Your task to perform on an android device: What's the weather? Image 0: 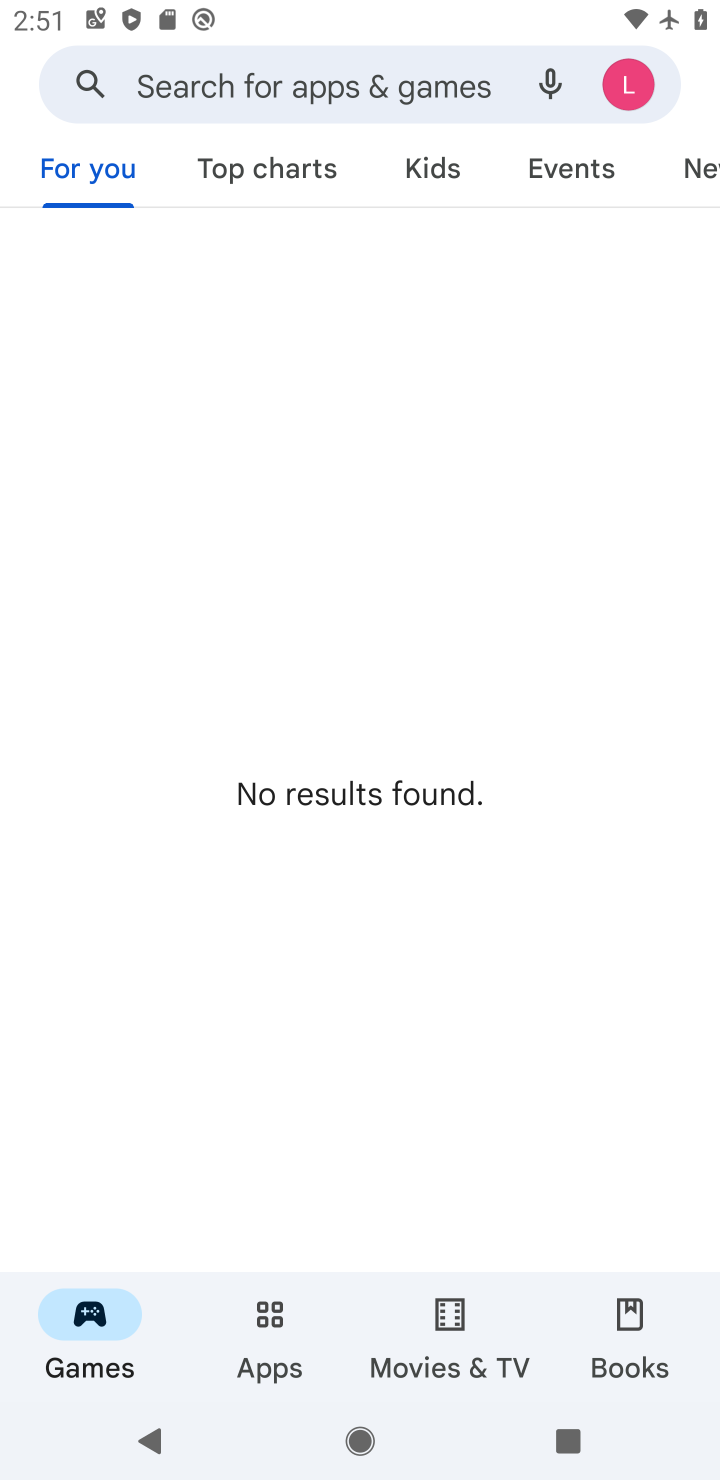
Step 0: press home button
Your task to perform on an android device: What's the weather? Image 1: 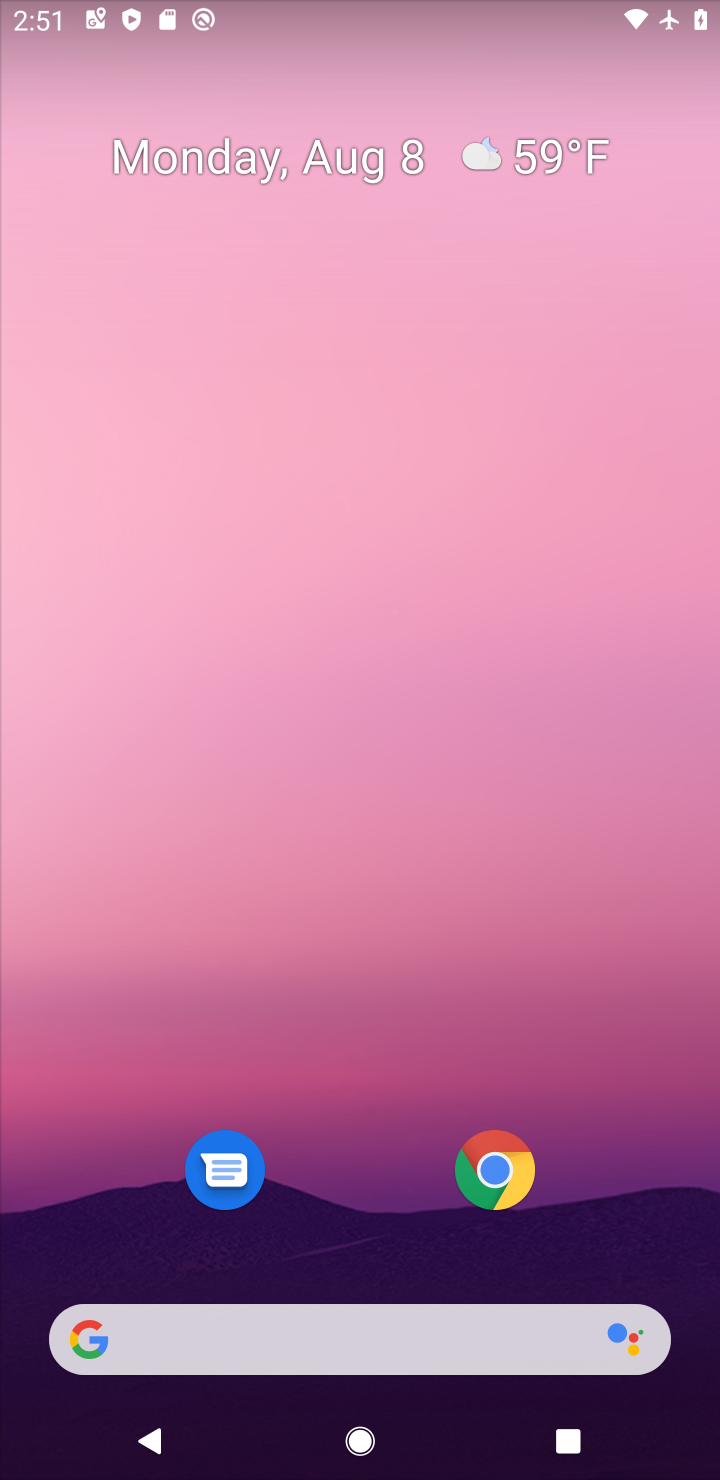
Step 1: drag from (385, 825) to (385, 510)
Your task to perform on an android device: What's the weather? Image 2: 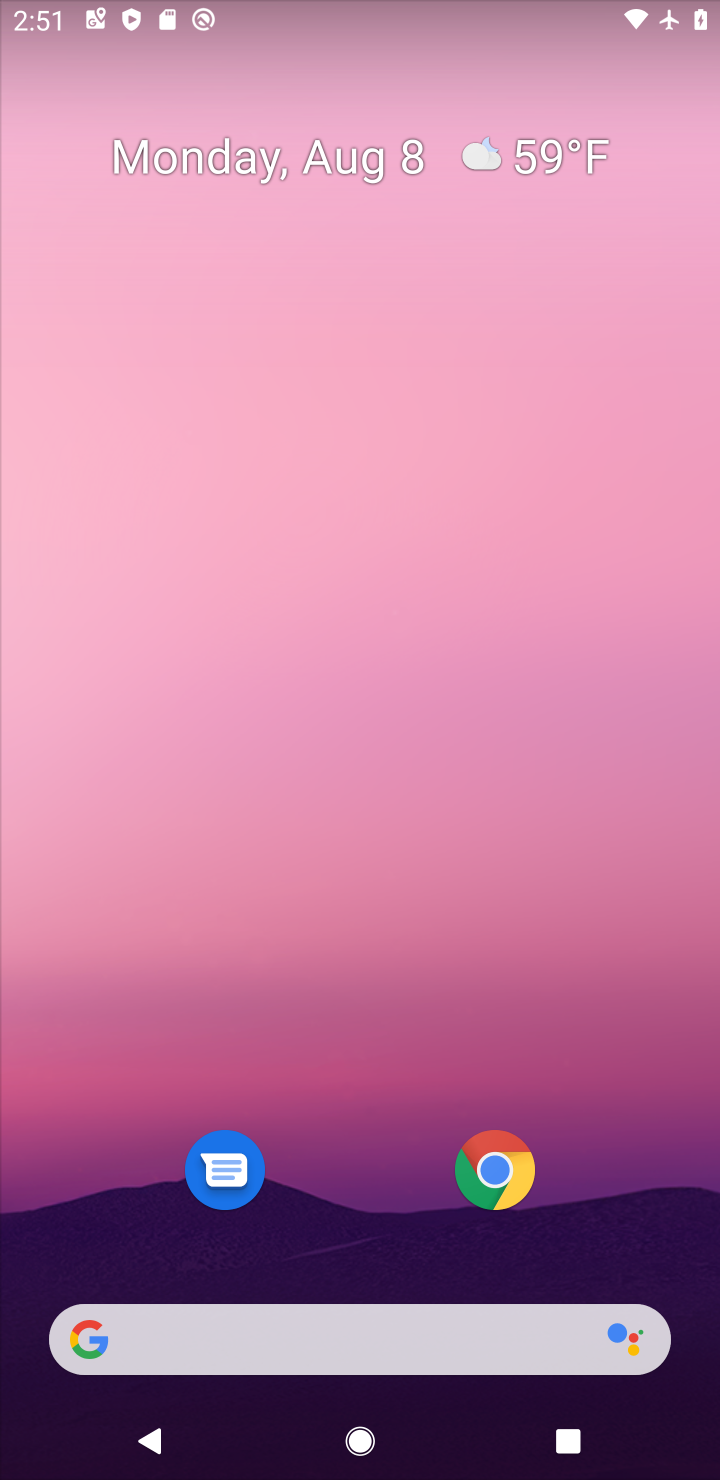
Step 2: drag from (355, 947) to (355, 387)
Your task to perform on an android device: What's the weather? Image 3: 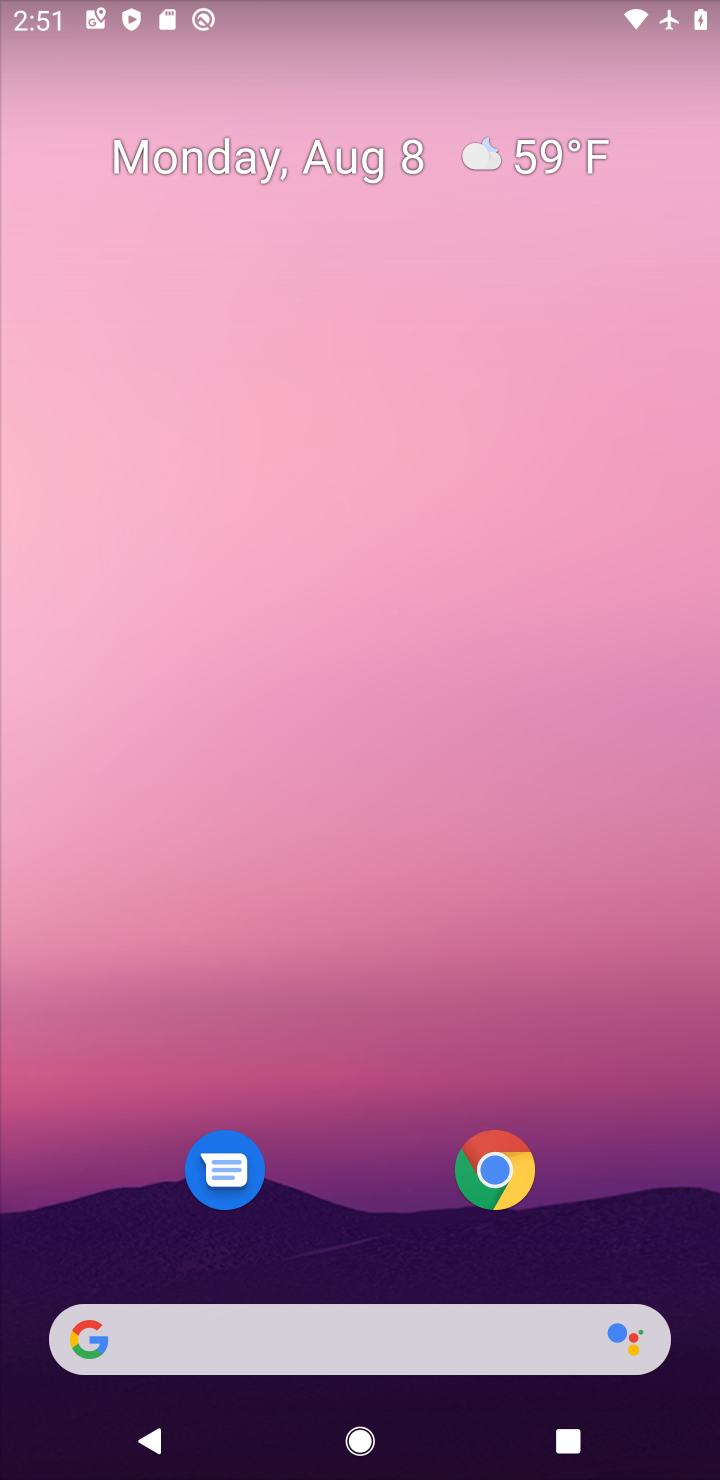
Step 3: drag from (379, 1201) to (379, 472)
Your task to perform on an android device: What's the weather? Image 4: 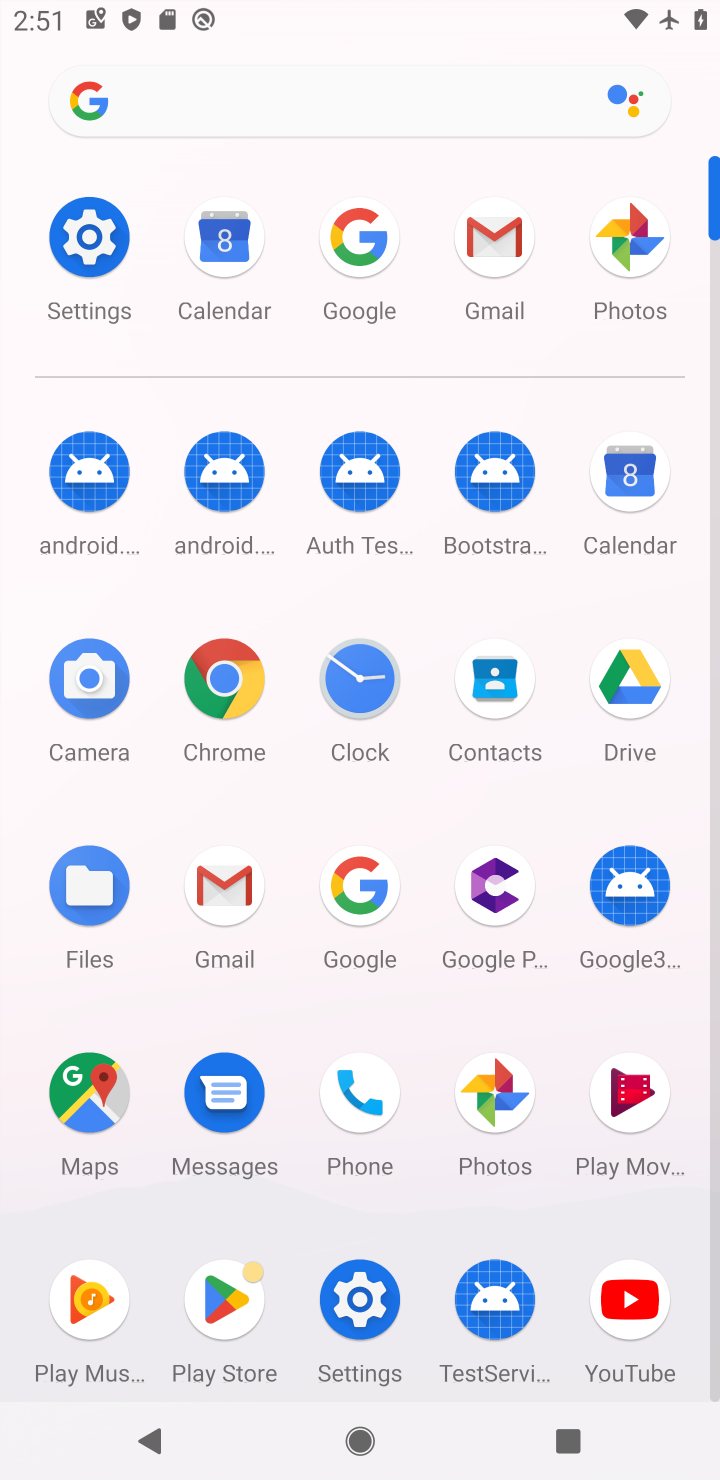
Step 4: click (343, 286)
Your task to perform on an android device: What's the weather? Image 5: 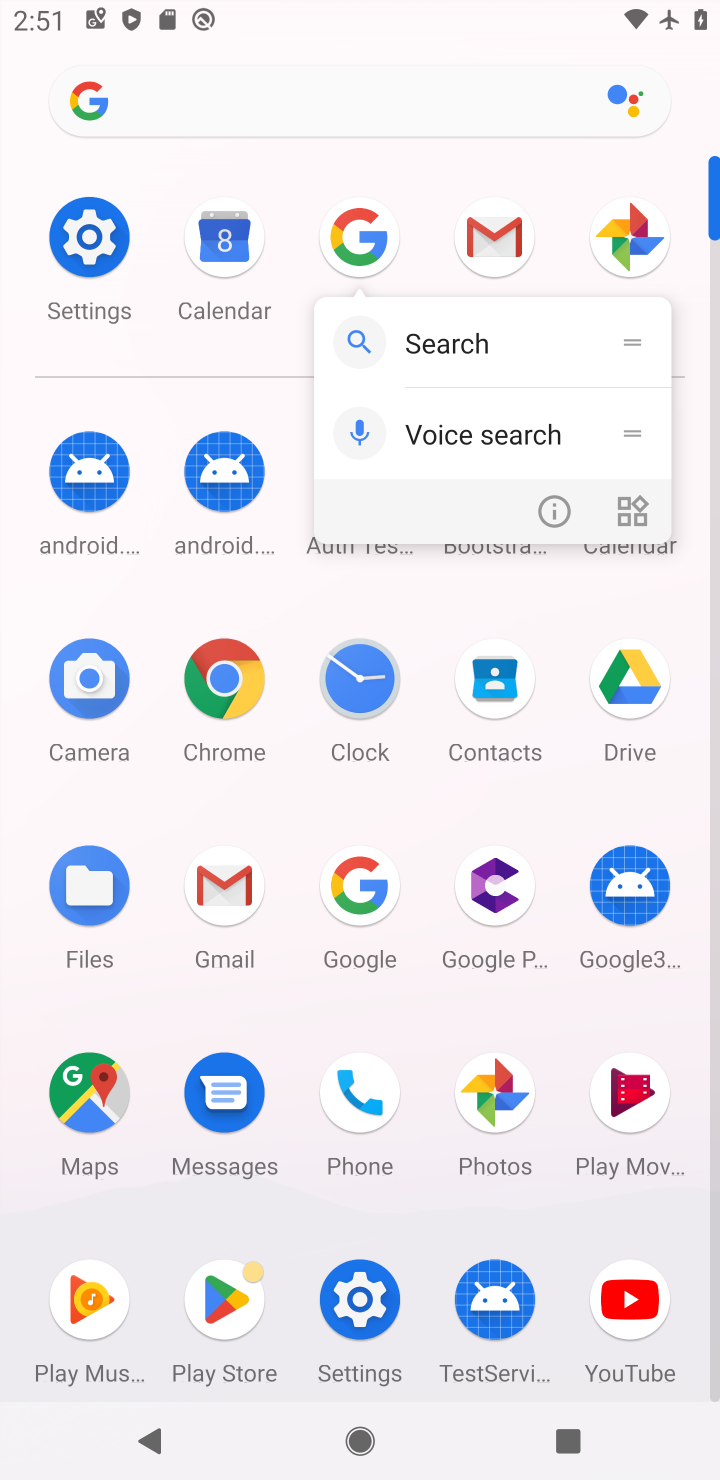
Step 5: click (366, 258)
Your task to perform on an android device: What's the weather? Image 6: 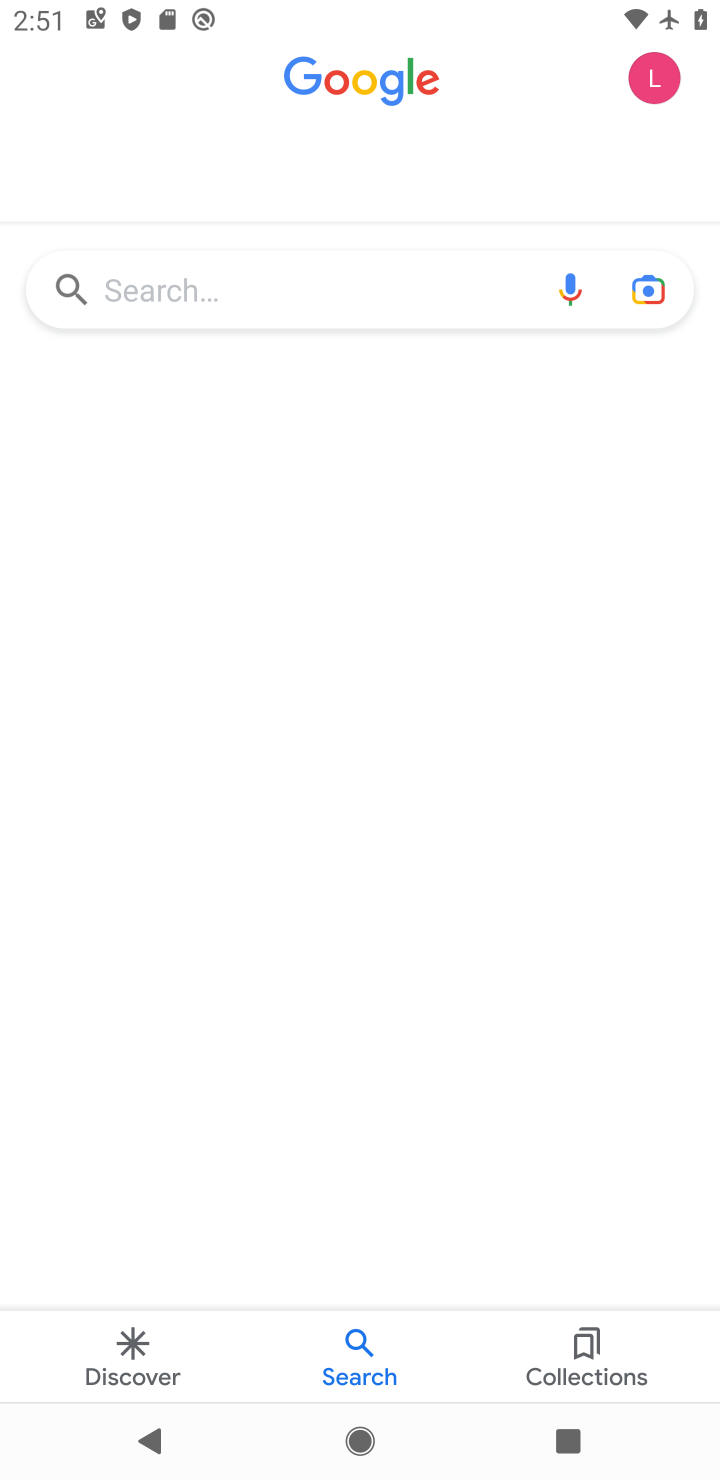
Step 6: click (241, 271)
Your task to perform on an android device: What's the weather? Image 7: 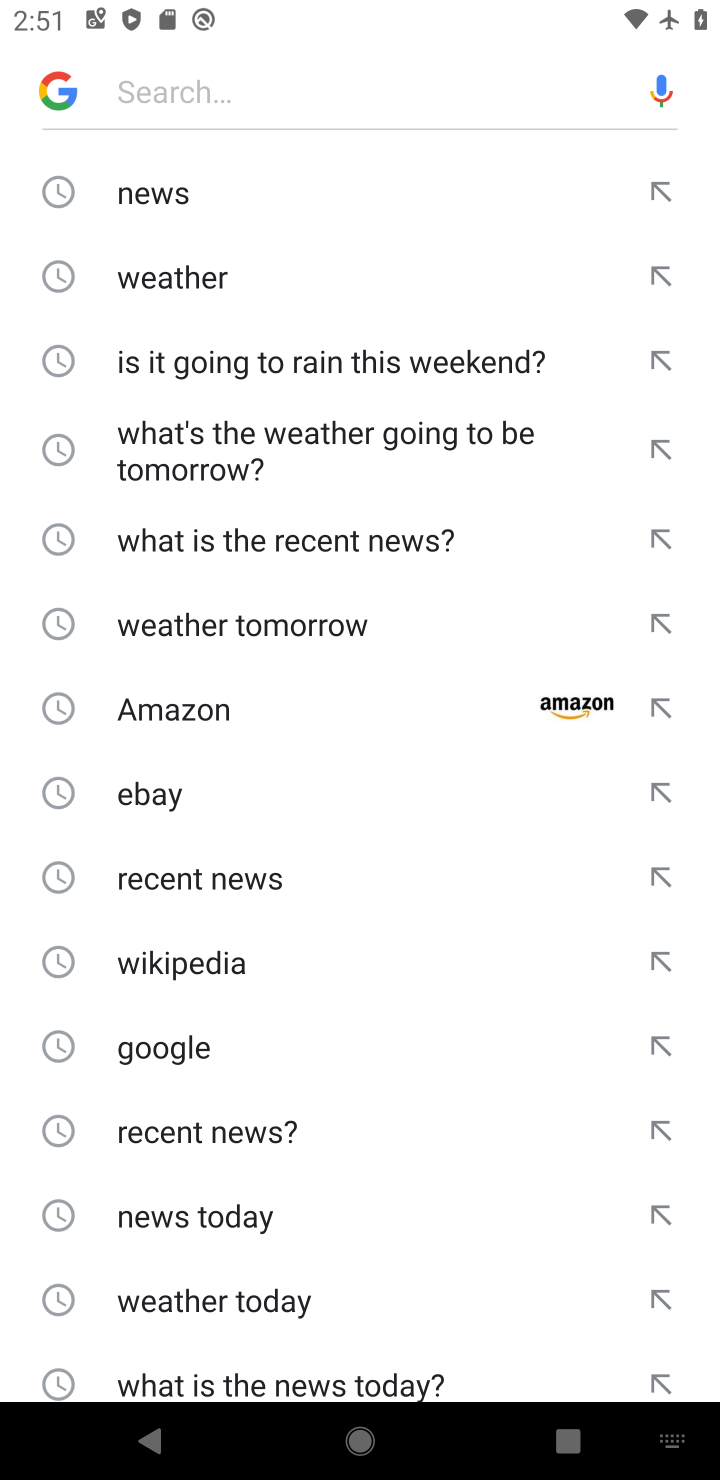
Step 7: click (214, 274)
Your task to perform on an android device: What's the weather? Image 8: 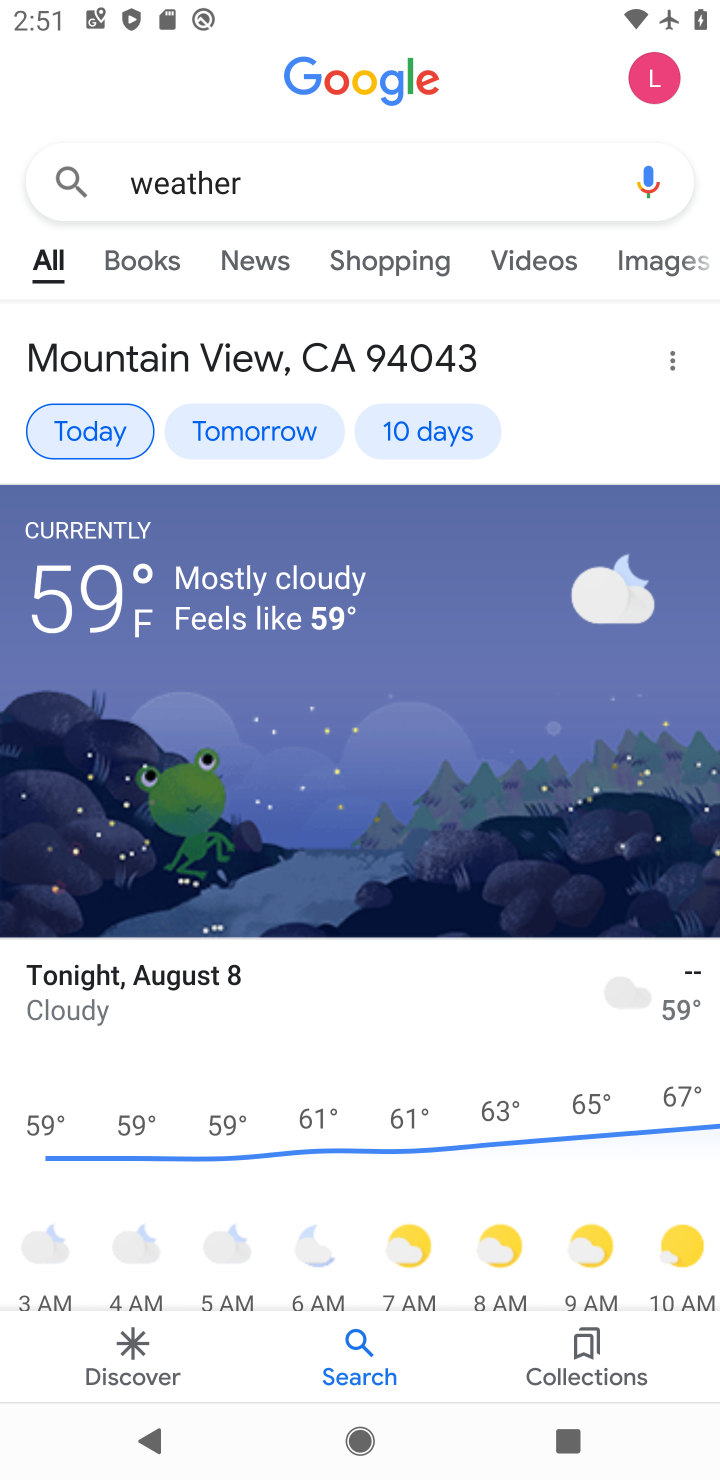
Step 8: task complete